Your task to perform on an android device: turn off notifications in google photos Image 0: 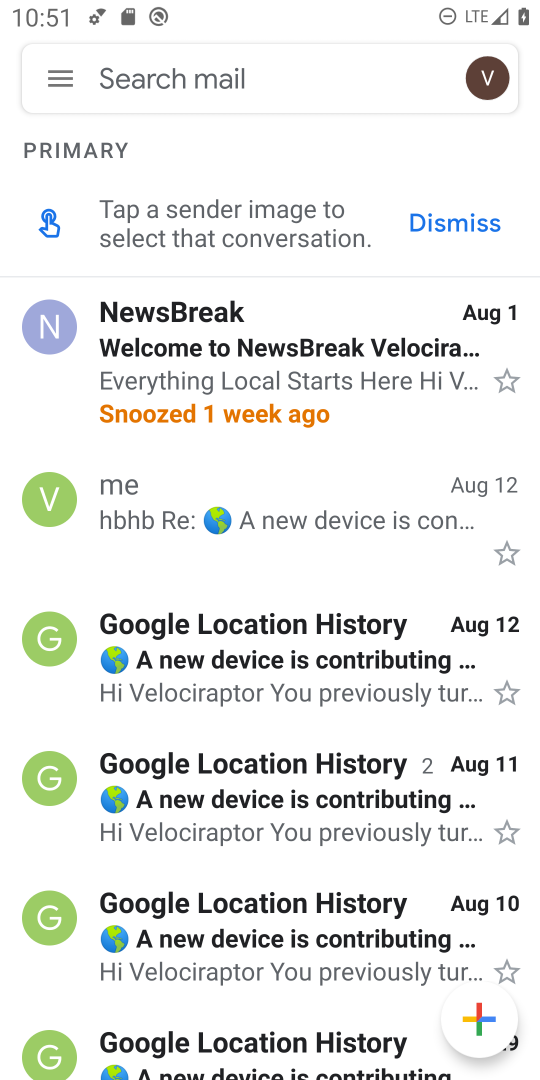
Step 0: click (61, 78)
Your task to perform on an android device: turn off notifications in google photos Image 1: 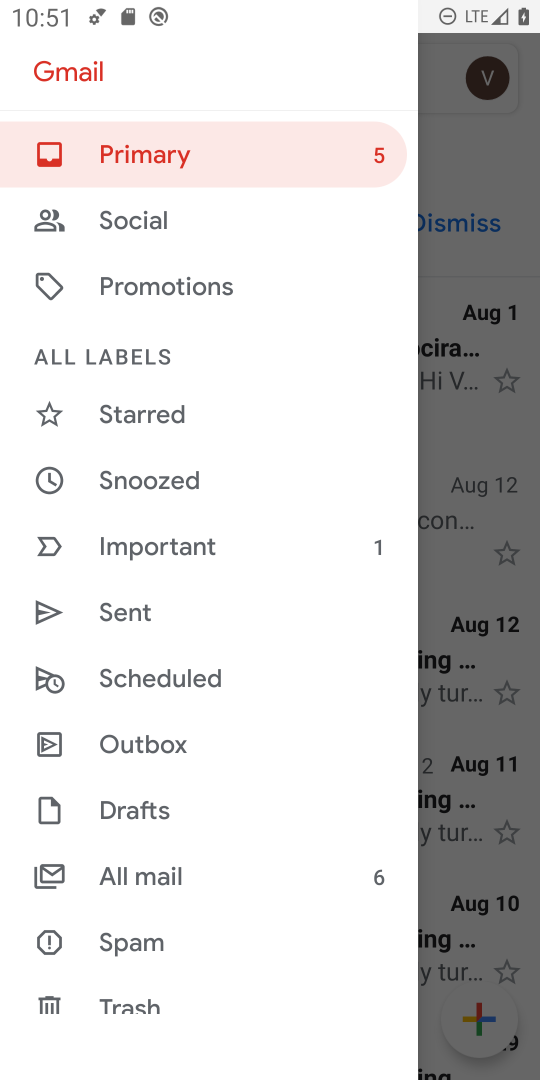
Step 1: drag from (156, 914) to (205, 2)
Your task to perform on an android device: turn off notifications in google photos Image 2: 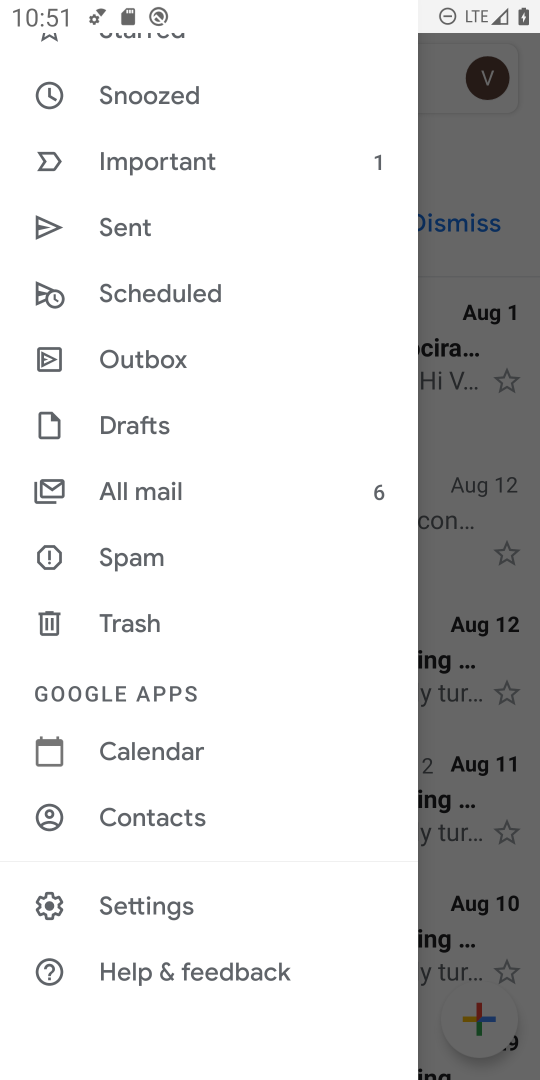
Step 2: click (195, 900)
Your task to perform on an android device: turn off notifications in google photos Image 3: 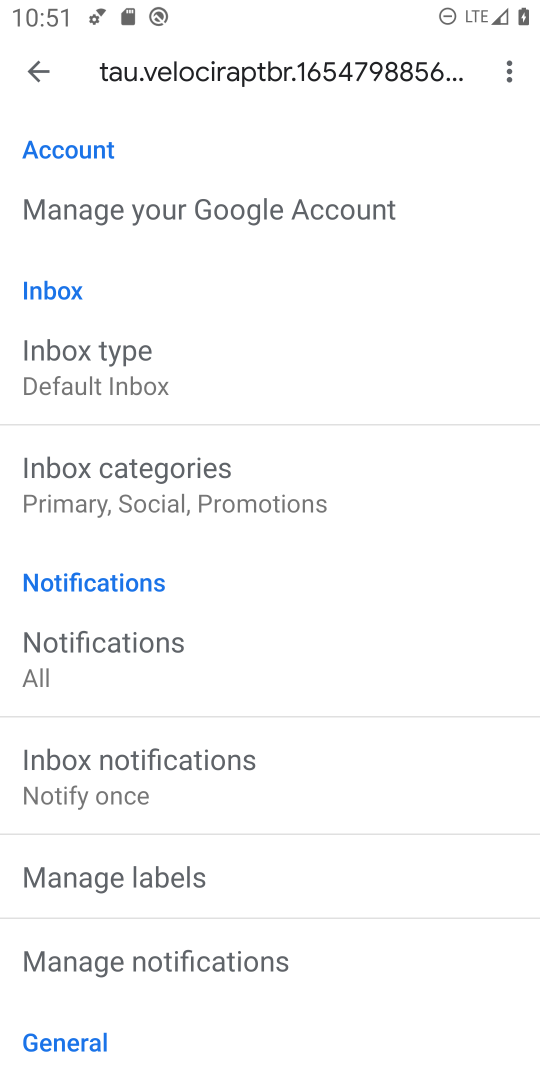
Step 3: click (41, 67)
Your task to perform on an android device: turn off notifications in google photos Image 4: 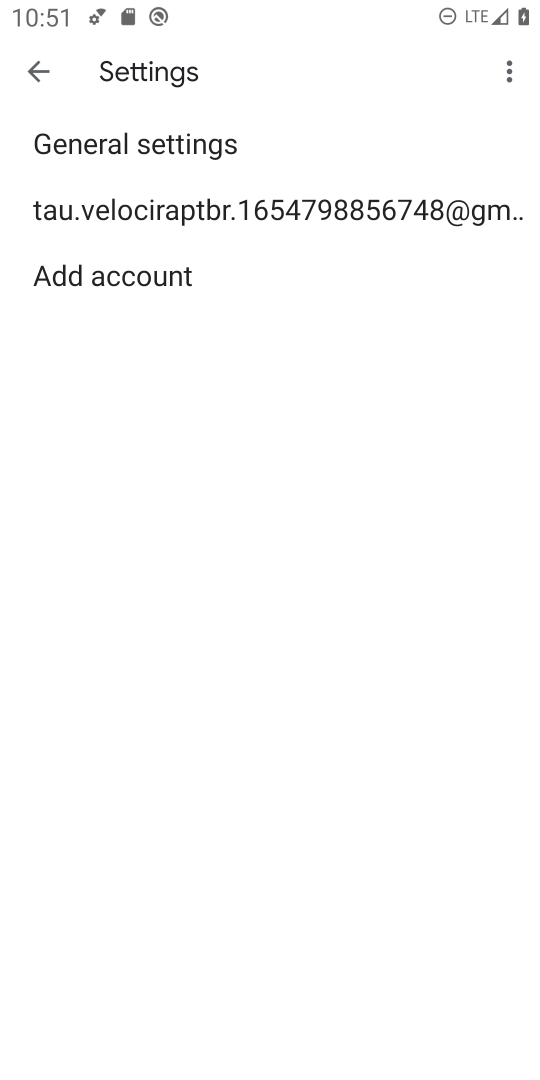
Step 4: click (218, 159)
Your task to perform on an android device: turn off notifications in google photos Image 5: 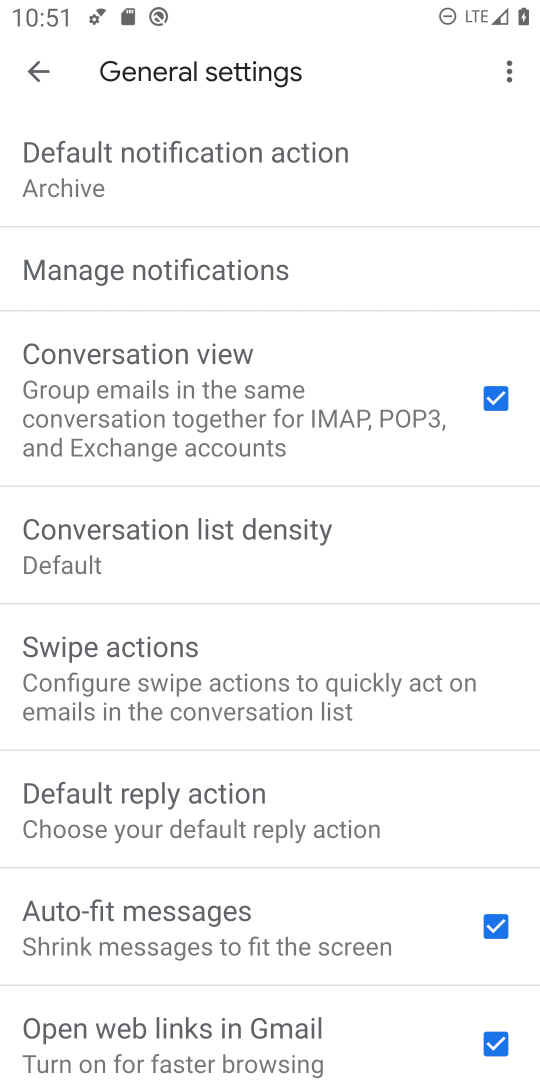
Step 5: click (254, 258)
Your task to perform on an android device: turn off notifications in google photos Image 6: 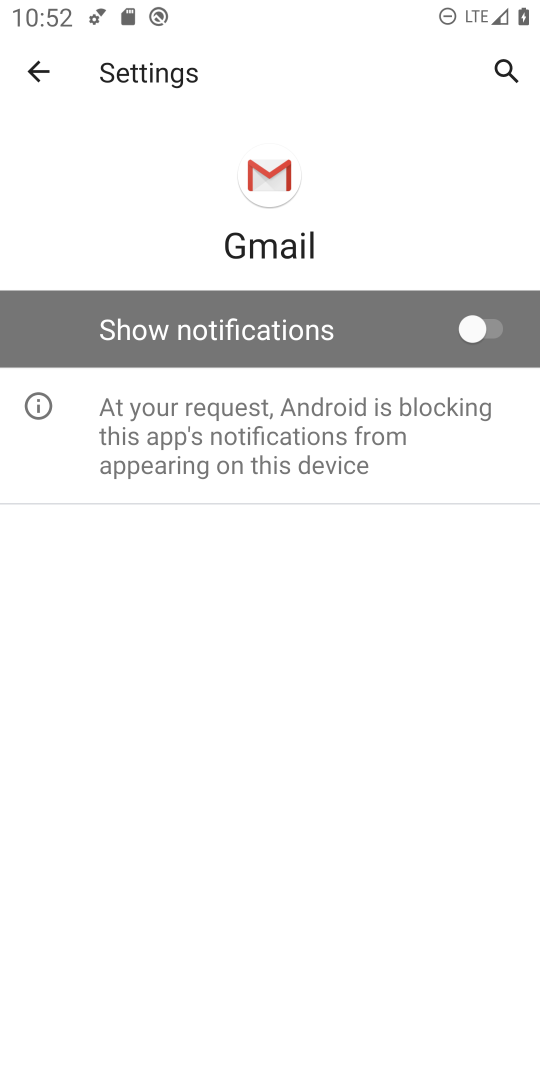
Step 6: task complete